Your task to perform on an android device: Show me the top rated dinnerware on Crate & Barrel Image 0: 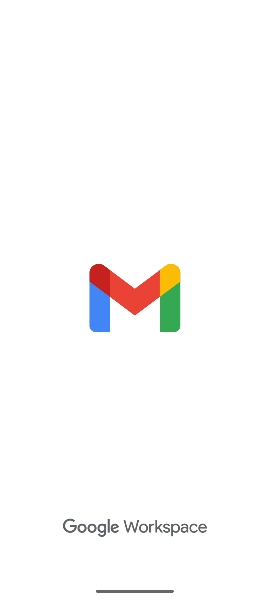
Step 0: press home button
Your task to perform on an android device: Show me the top rated dinnerware on Crate & Barrel Image 1: 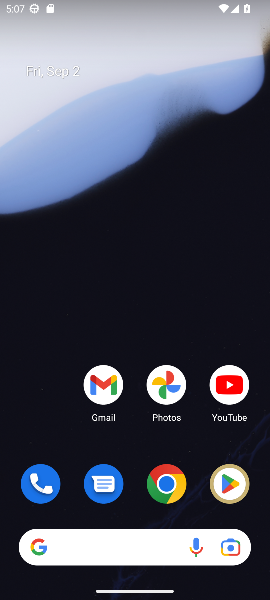
Step 1: click (153, 486)
Your task to perform on an android device: Show me the top rated dinnerware on Crate & Barrel Image 2: 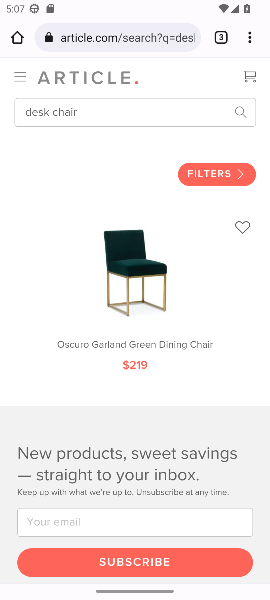
Step 2: click (144, 36)
Your task to perform on an android device: Show me the top rated dinnerware on Crate & Barrel Image 3: 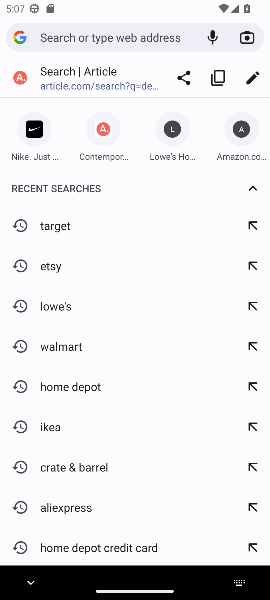
Step 3: type "Crate & Barrel"
Your task to perform on an android device: Show me the top rated dinnerware on Crate & Barrel Image 4: 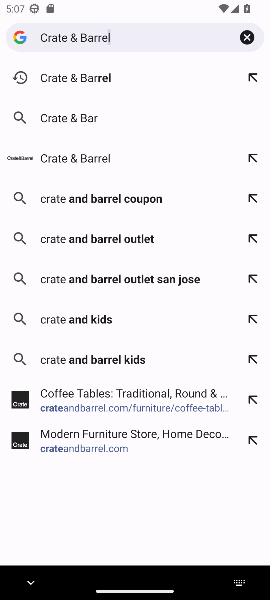
Step 4: press enter
Your task to perform on an android device: Show me the top rated dinnerware on Crate & Barrel Image 5: 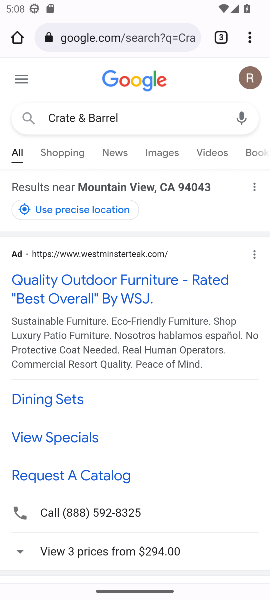
Step 5: drag from (139, 507) to (124, 183)
Your task to perform on an android device: Show me the top rated dinnerware on Crate & Barrel Image 6: 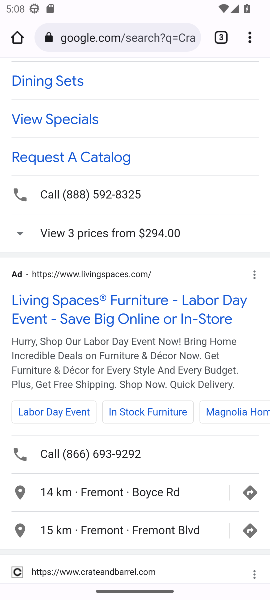
Step 6: drag from (112, 488) to (123, 176)
Your task to perform on an android device: Show me the top rated dinnerware on Crate & Barrel Image 7: 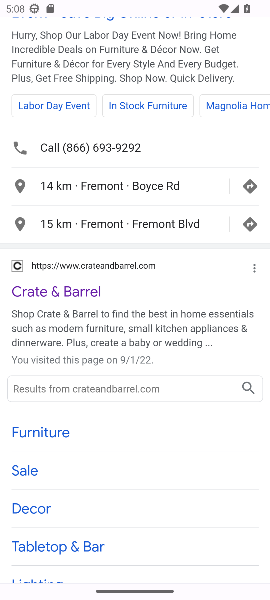
Step 7: click (49, 295)
Your task to perform on an android device: Show me the top rated dinnerware on Crate & Barrel Image 8: 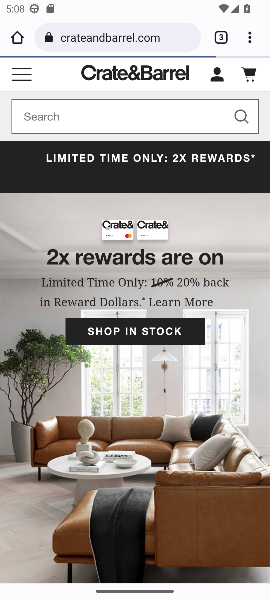
Step 8: click (118, 116)
Your task to perform on an android device: Show me the top rated dinnerware on Crate & Barrel Image 9: 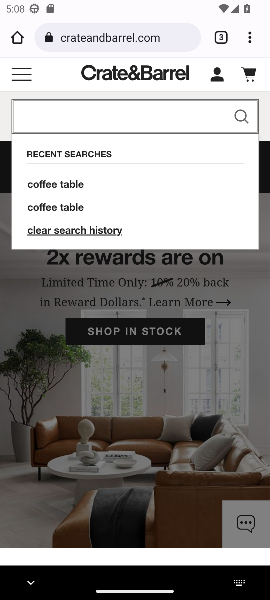
Step 9: press enter
Your task to perform on an android device: Show me the top rated dinnerware on Crate & Barrel Image 10: 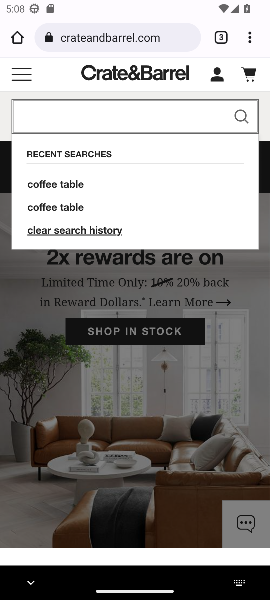
Step 10: type "dinnerware "
Your task to perform on an android device: Show me the top rated dinnerware on Crate & Barrel Image 11: 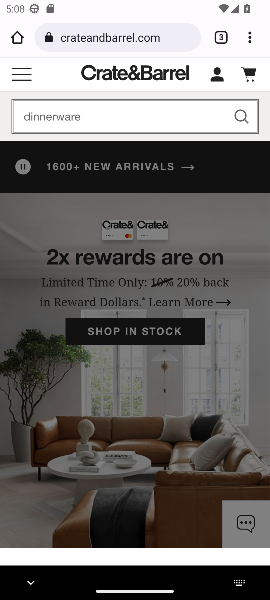
Step 11: click (241, 113)
Your task to perform on an android device: Show me the top rated dinnerware on Crate & Barrel Image 12: 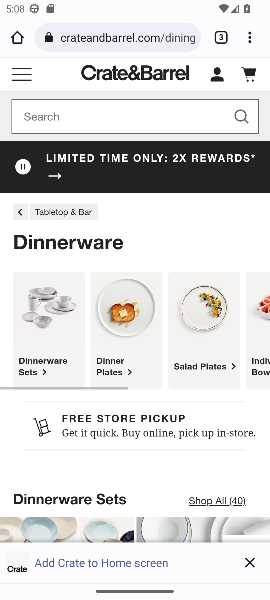
Step 12: task complete